Your task to perform on an android device: toggle javascript in the chrome app Image 0: 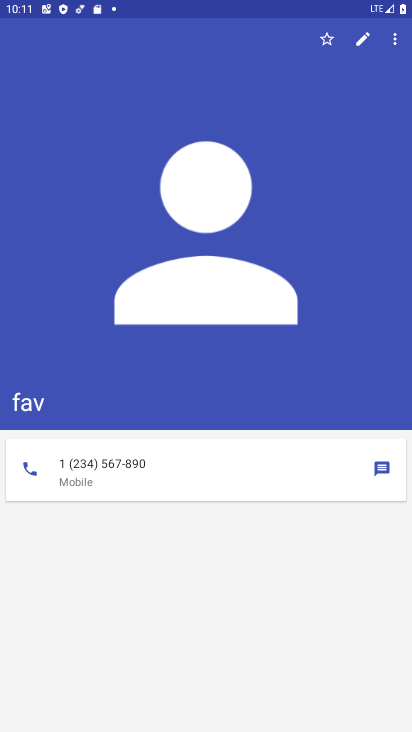
Step 0: press home button
Your task to perform on an android device: toggle javascript in the chrome app Image 1: 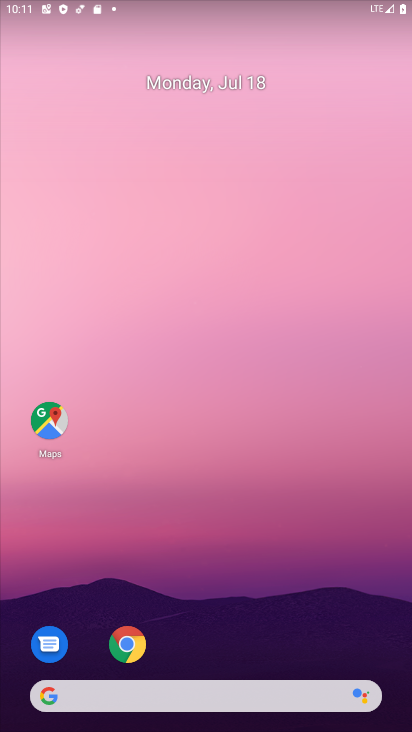
Step 1: drag from (347, 593) to (372, 119)
Your task to perform on an android device: toggle javascript in the chrome app Image 2: 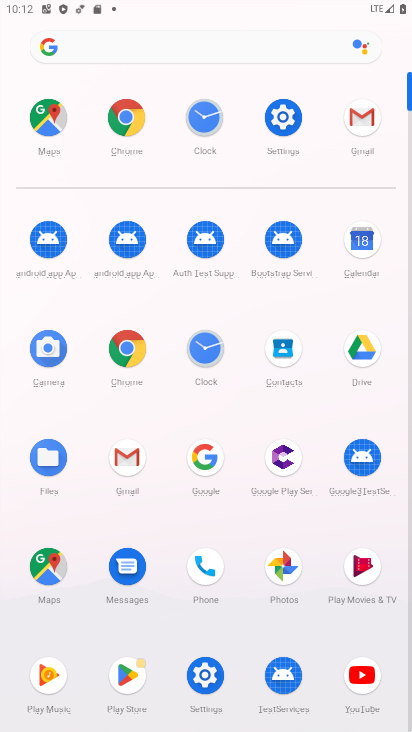
Step 2: click (118, 367)
Your task to perform on an android device: toggle javascript in the chrome app Image 3: 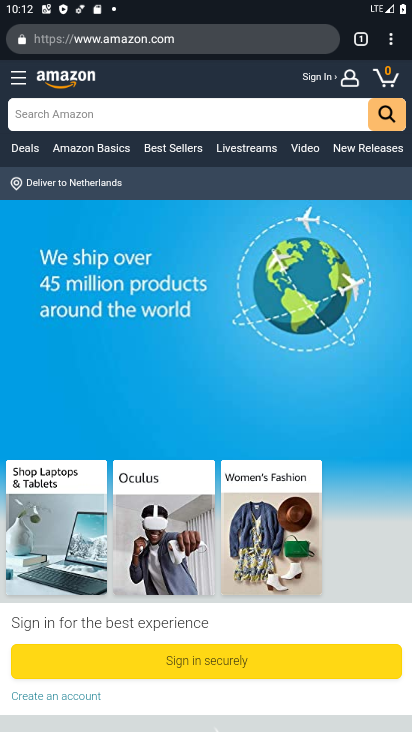
Step 3: click (391, 49)
Your task to perform on an android device: toggle javascript in the chrome app Image 4: 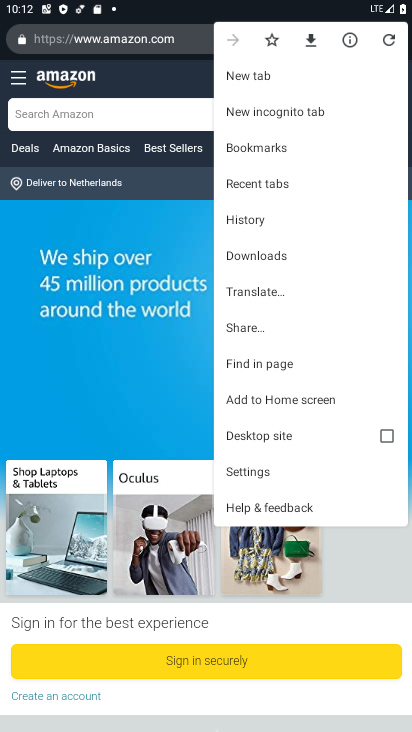
Step 4: click (267, 475)
Your task to perform on an android device: toggle javascript in the chrome app Image 5: 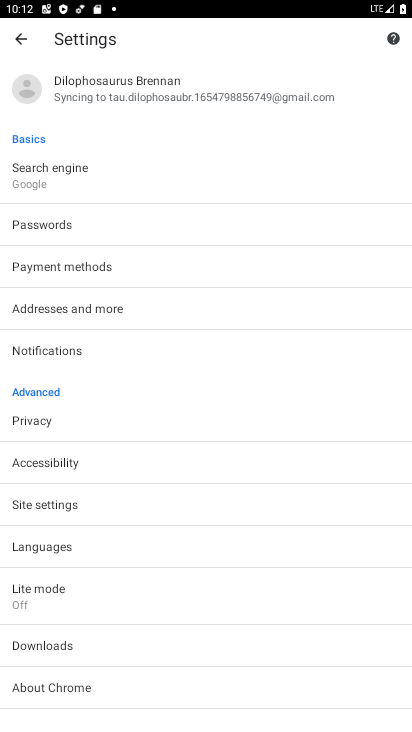
Step 5: click (227, 497)
Your task to perform on an android device: toggle javascript in the chrome app Image 6: 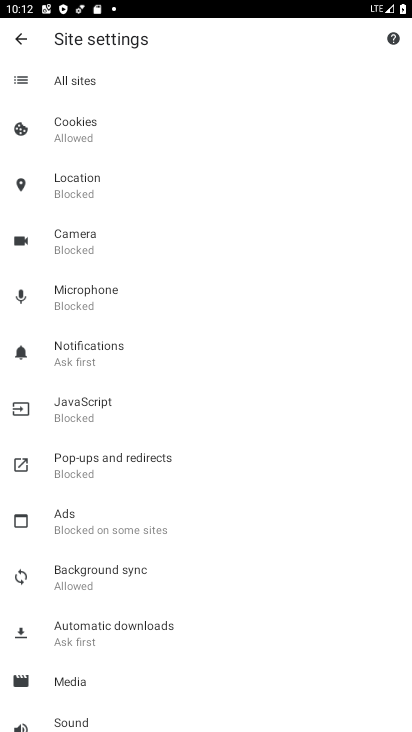
Step 6: drag from (286, 499) to (312, 257)
Your task to perform on an android device: toggle javascript in the chrome app Image 7: 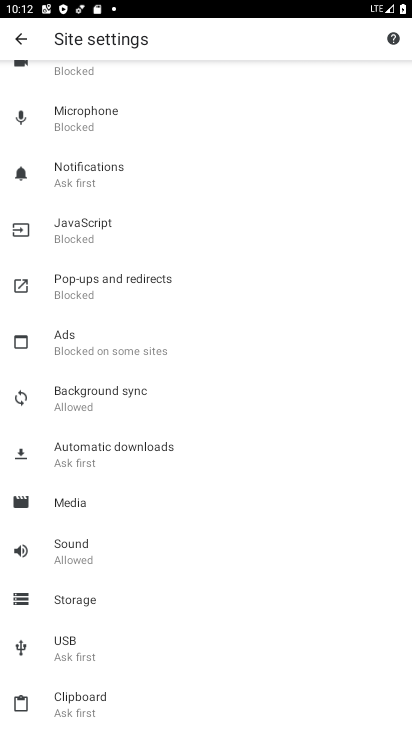
Step 7: drag from (307, 266) to (319, 381)
Your task to perform on an android device: toggle javascript in the chrome app Image 8: 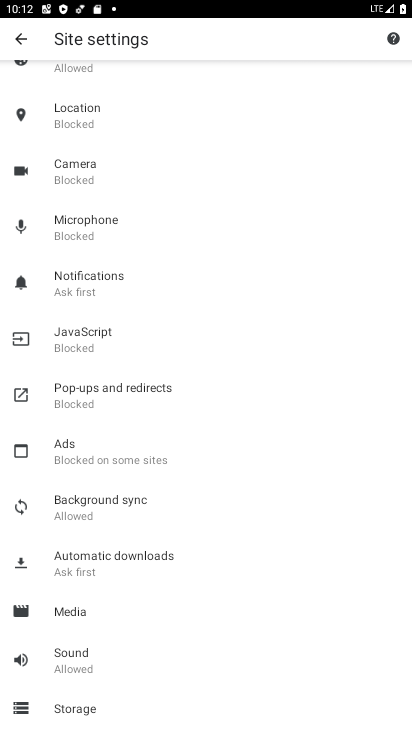
Step 8: click (199, 344)
Your task to perform on an android device: toggle javascript in the chrome app Image 9: 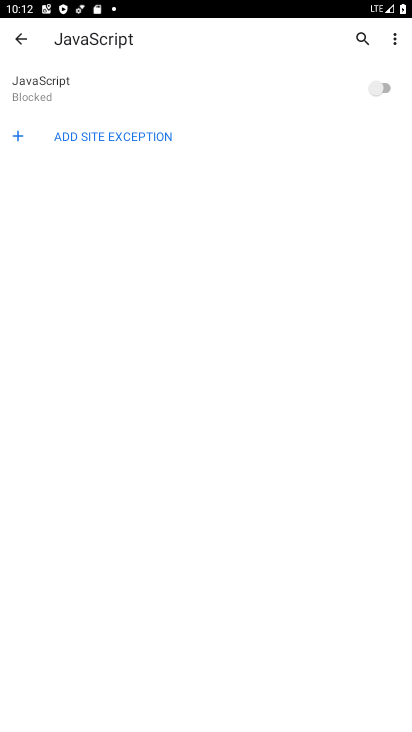
Step 9: click (368, 95)
Your task to perform on an android device: toggle javascript in the chrome app Image 10: 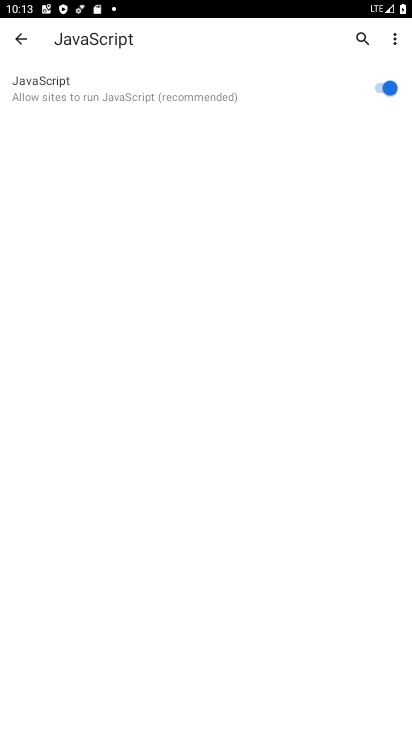
Step 10: task complete